Your task to perform on an android device: Search for seafood restaurants on Google Maps Image 0: 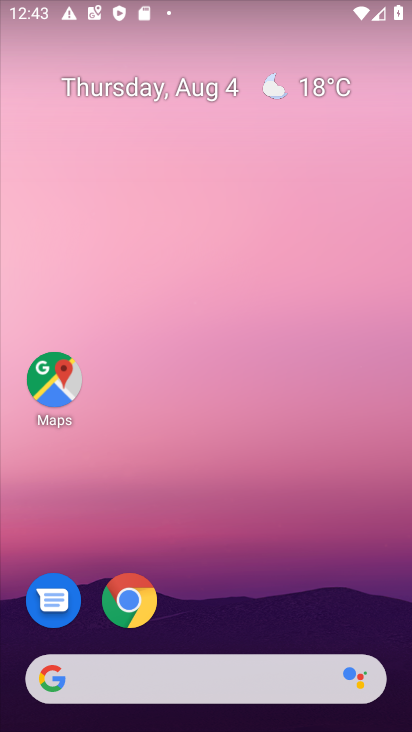
Step 0: press home button
Your task to perform on an android device: Search for seafood restaurants on Google Maps Image 1: 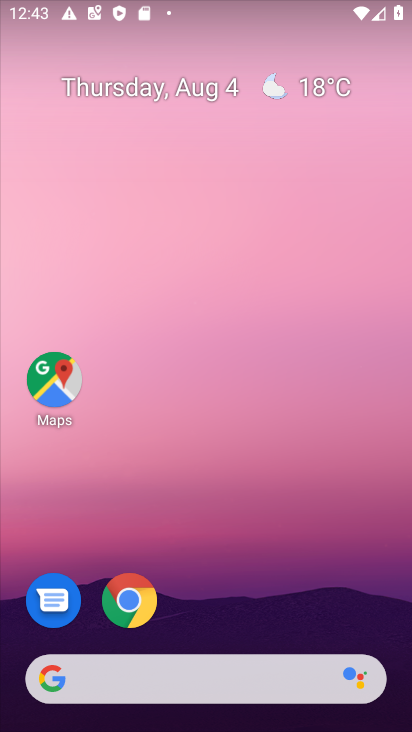
Step 1: click (56, 384)
Your task to perform on an android device: Search for seafood restaurants on Google Maps Image 2: 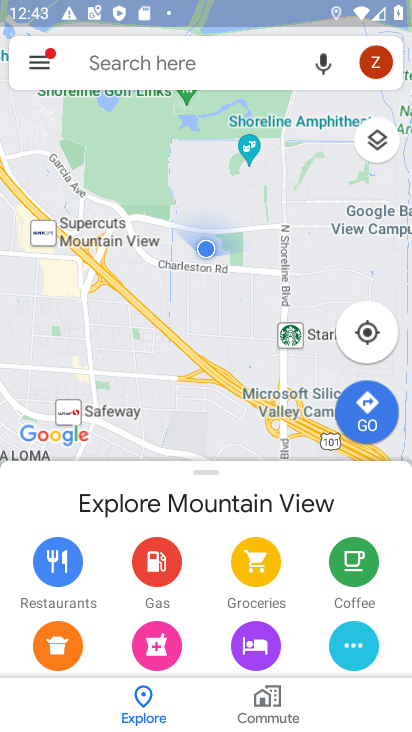
Step 2: click (201, 64)
Your task to perform on an android device: Search for seafood restaurants on Google Maps Image 3: 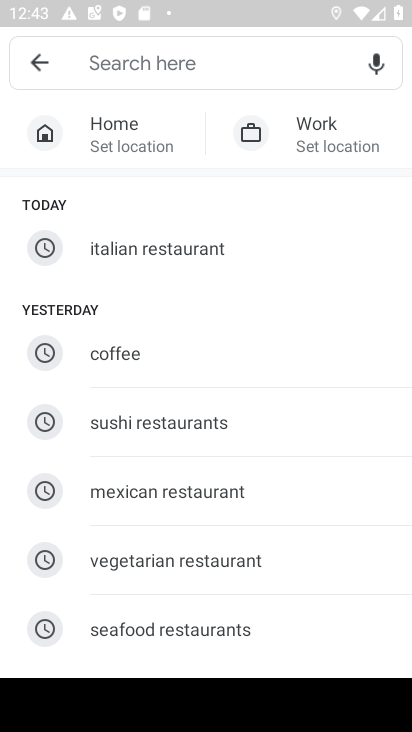
Step 3: click (208, 634)
Your task to perform on an android device: Search for seafood restaurants on Google Maps Image 4: 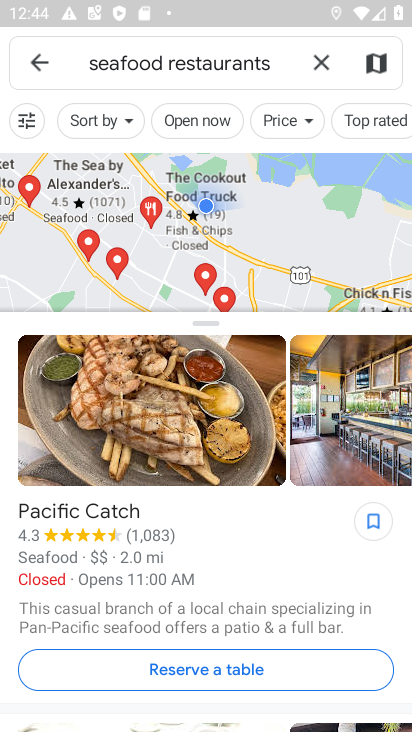
Step 4: task complete